Your task to perform on an android device: find snoozed emails in the gmail app Image 0: 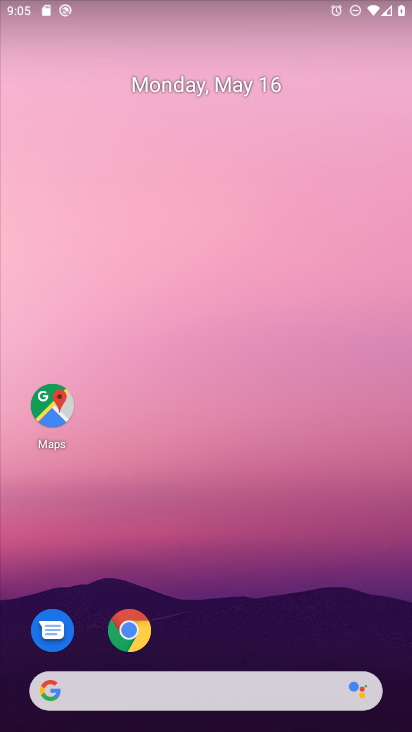
Step 0: drag from (249, 543) to (257, 74)
Your task to perform on an android device: find snoozed emails in the gmail app Image 1: 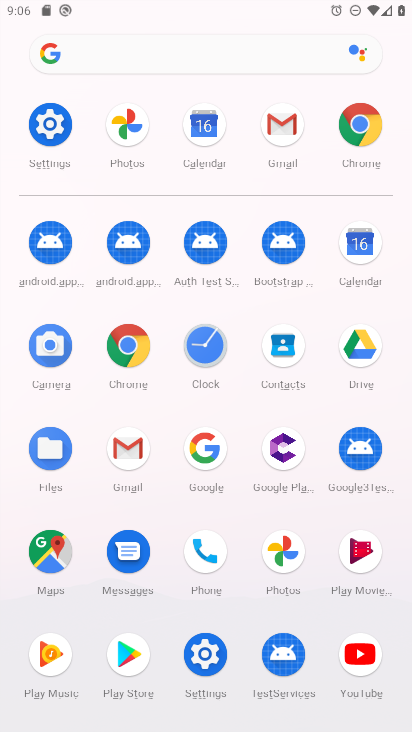
Step 1: click (278, 120)
Your task to perform on an android device: find snoozed emails in the gmail app Image 2: 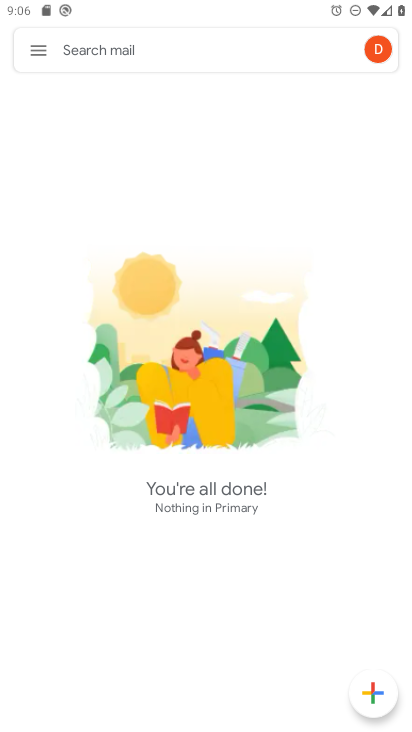
Step 2: click (24, 44)
Your task to perform on an android device: find snoozed emails in the gmail app Image 3: 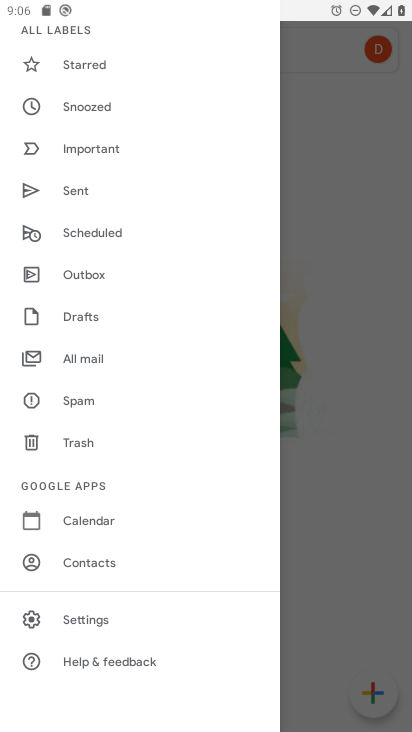
Step 3: click (145, 105)
Your task to perform on an android device: find snoozed emails in the gmail app Image 4: 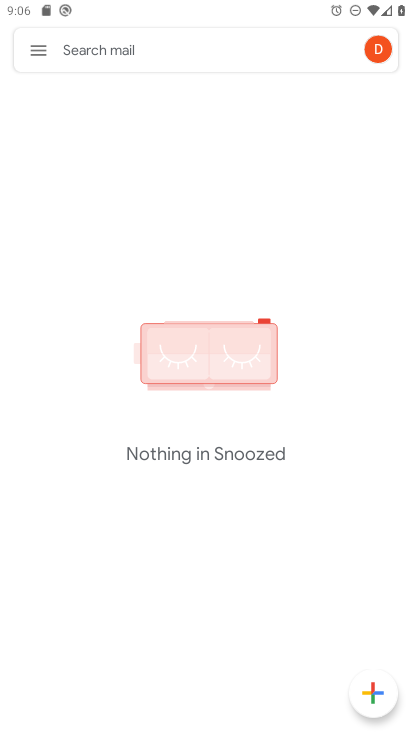
Step 4: task complete